Your task to perform on an android device: turn on showing notifications on the lock screen Image 0: 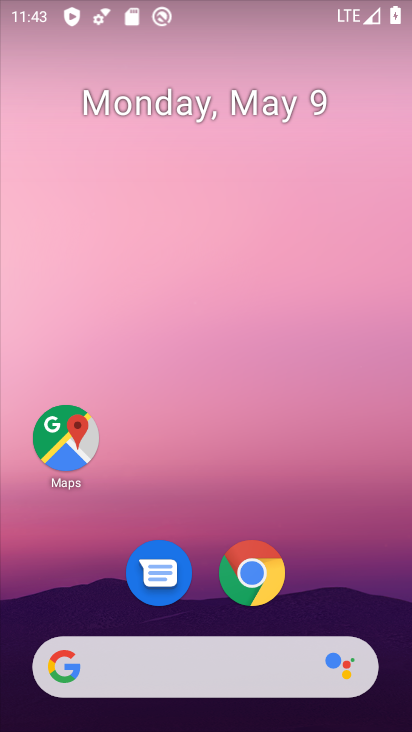
Step 0: drag from (194, 479) to (194, 178)
Your task to perform on an android device: turn on showing notifications on the lock screen Image 1: 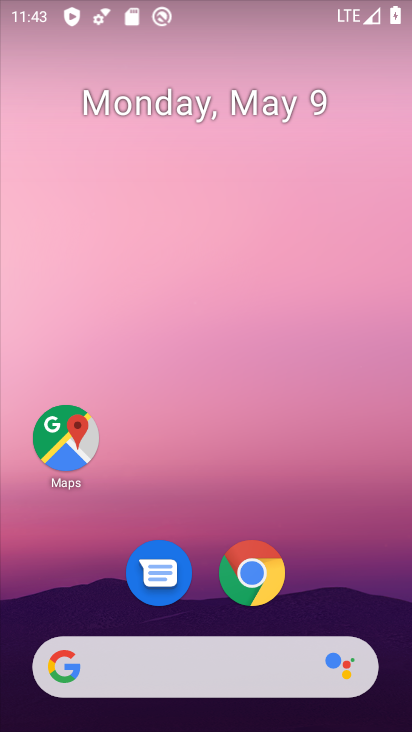
Step 1: drag from (198, 621) to (197, 236)
Your task to perform on an android device: turn on showing notifications on the lock screen Image 2: 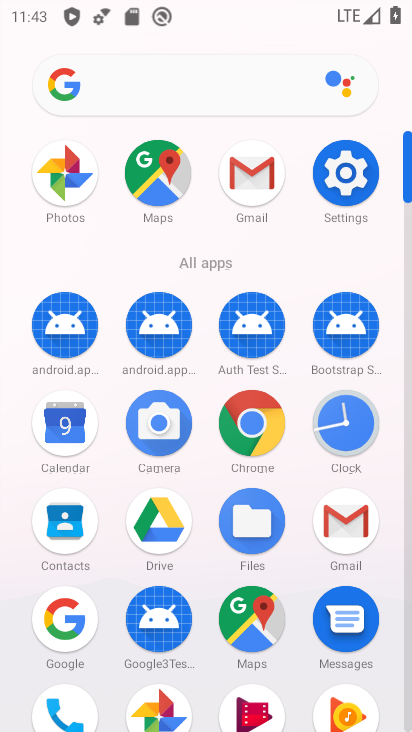
Step 2: click (342, 163)
Your task to perform on an android device: turn on showing notifications on the lock screen Image 3: 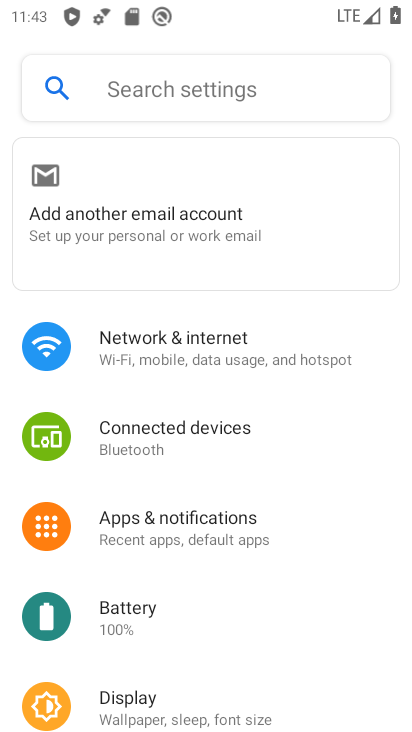
Step 3: drag from (245, 677) to (313, 286)
Your task to perform on an android device: turn on showing notifications on the lock screen Image 4: 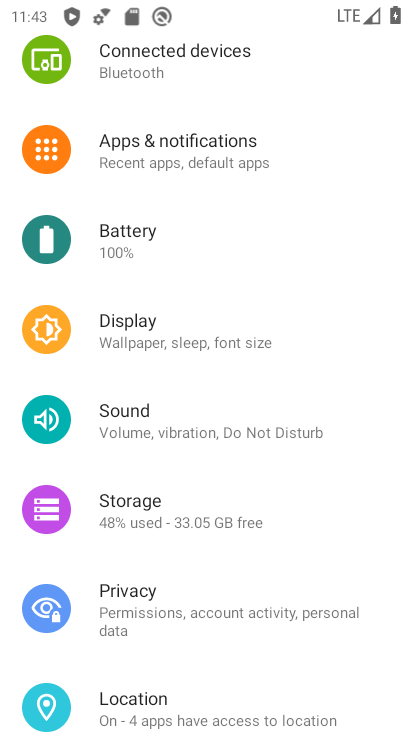
Step 4: click (215, 148)
Your task to perform on an android device: turn on showing notifications on the lock screen Image 5: 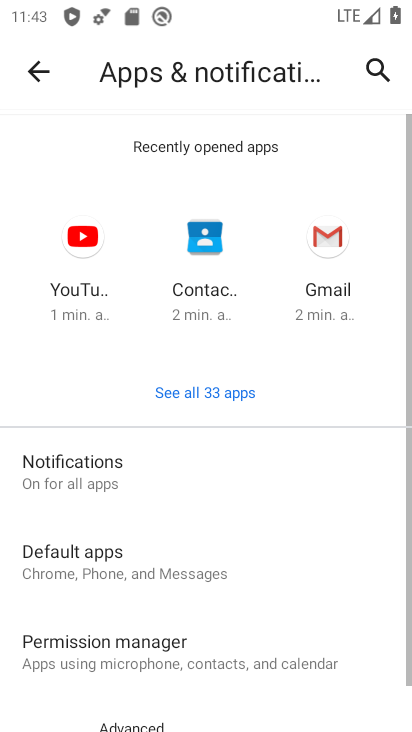
Step 5: click (132, 492)
Your task to perform on an android device: turn on showing notifications on the lock screen Image 6: 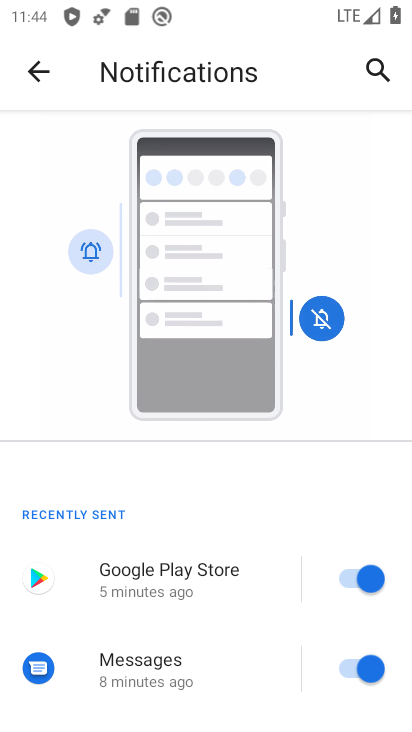
Step 6: drag from (226, 678) to (263, 395)
Your task to perform on an android device: turn on showing notifications on the lock screen Image 7: 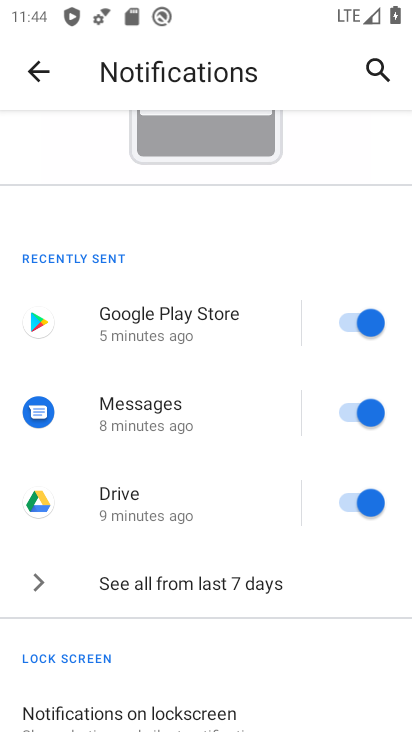
Step 7: drag from (172, 591) to (265, 229)
Your task to perform on an android device: turn on showing notifications on the lock screen Image 8: 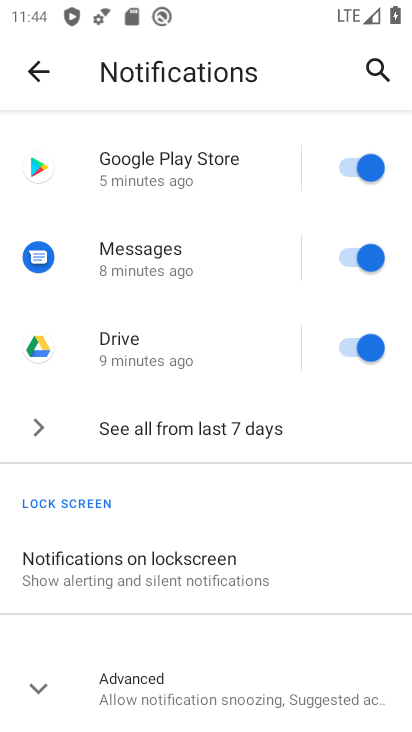
Step 8: drag from (214, 639) to (265, 293)
Your task to perform on an android device: turn on showing notifications on the lock screen Image 9: 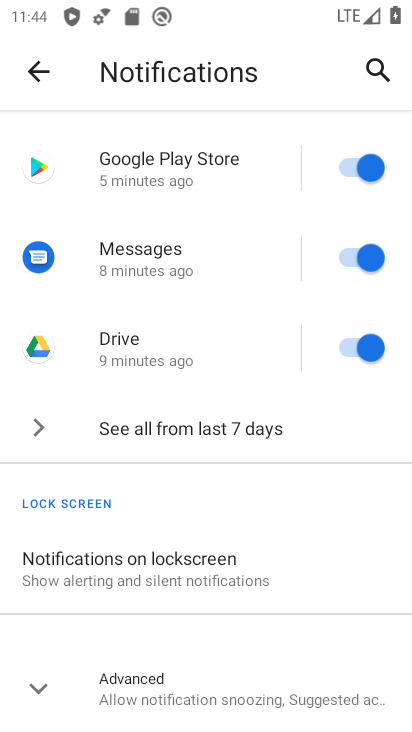
Step 9: click (153, 573)
Your task to perform on an android device: turn on showing notifications on the lock screen Image 10: 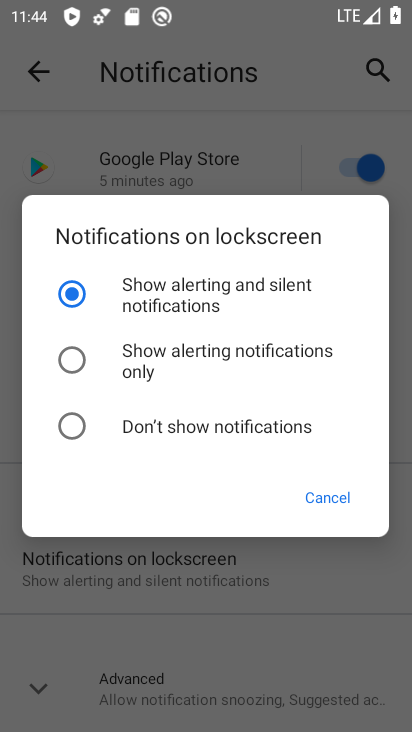
Step 10: click (158, 339)
Your task to perform on an android device: turn on showing notifications on the lock screen Image 11: 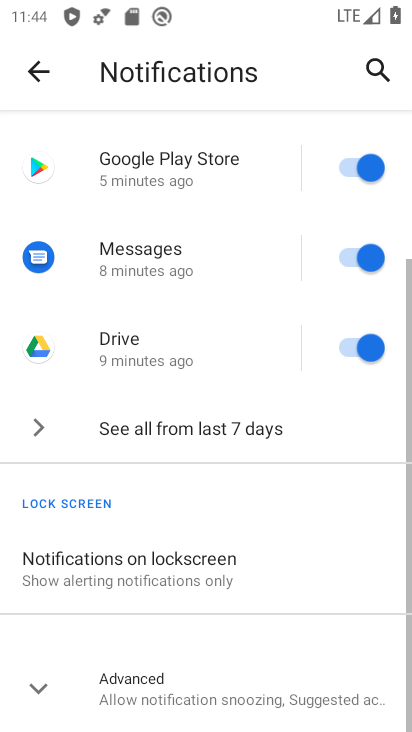
Step 11: task complete